Your task to perform on an android device: Open Google Maps and go to "Timeline" Image 0: 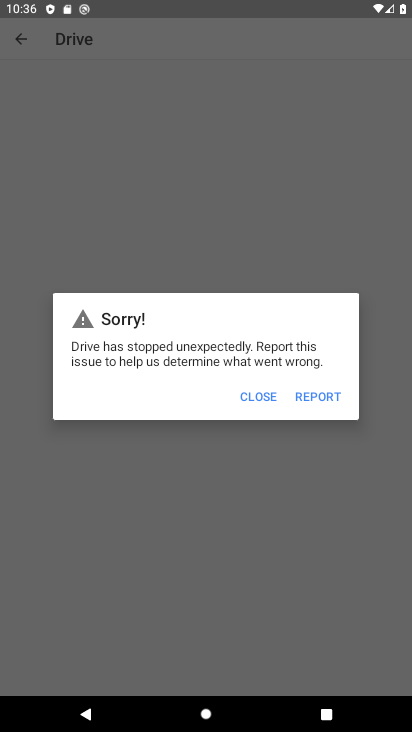
Step 0: press home button
Your task to perform on an android device: Open Google Maps and go to "Timeline" Image 1: 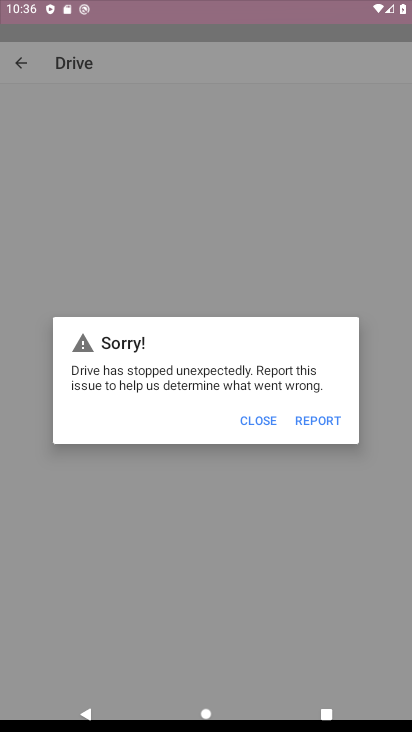
Step 1: drag from (234, 112) to (231, 71)
Your task to perform on an android device: Open Google Maps and go to "Timeline" Image 2: 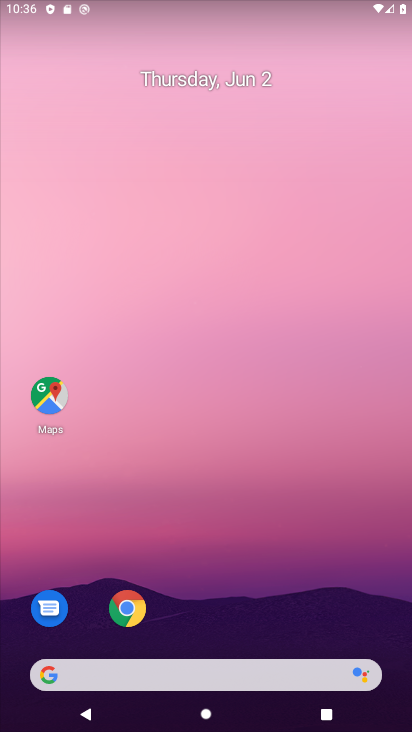
Step 2: drag from (227, 614) to (290, 143)
Your task to perform on an android device: Open Google Maps and go to "Timeline" Image 3: 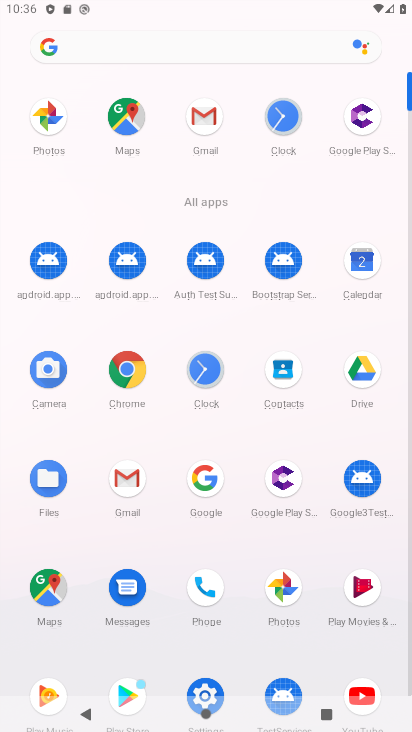
Step 3: click (45, 584)
Your task to perform on an android device: Open Google Maps and go to "Timeline" Image 4: 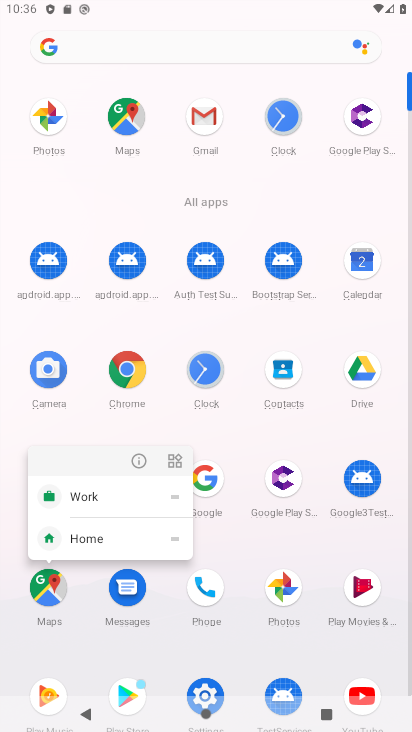
Step 4: click (140, 460)
Your task to perform on an android device: Open Google Maps and go to "Timeline" Image 5: 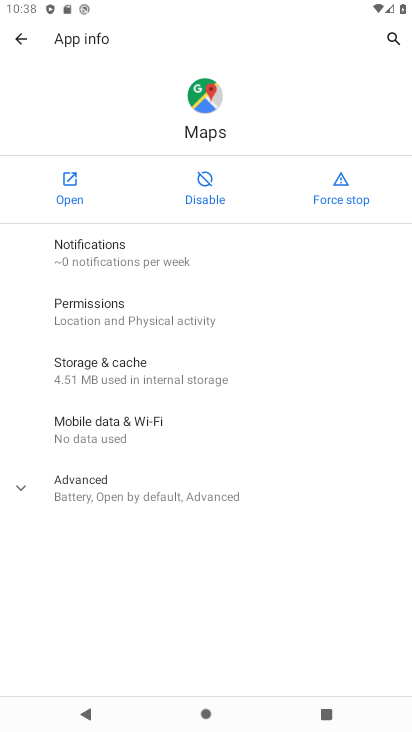
Step 5: click (71, 174)
Your task to perform on an android device: Open Google Maps and go to "Timeline" Image 6: 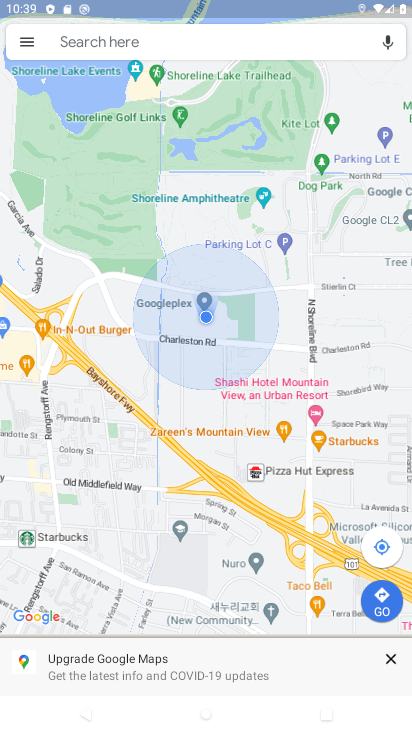
Step 6: click (25, 38)
Your task to perform on an android device: Open Google Maps and go to "Timeline" Image 7: 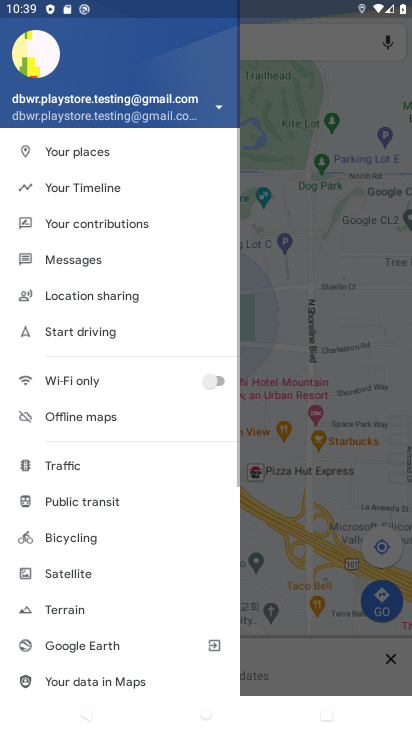
Step 7: click (94, 195)
Your task to perform on an android device: Open Google Maps and go to "Timeline" Image 8: 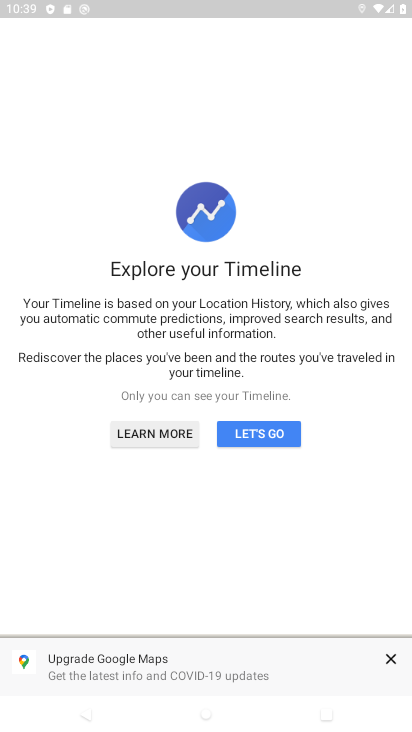
Step 8: click (254, 437)
Your task to perform on an android device: Open Google Maps and go to "Timeline" Image 9: 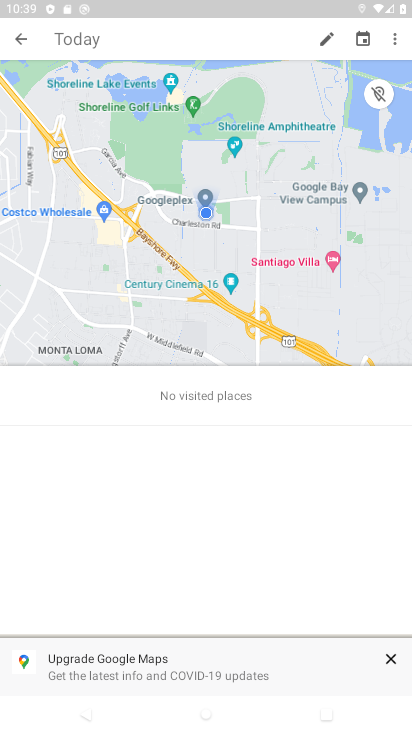
Step 9: drag from (269, 508) to (271, 227)
Your task to perform on an android device: Open Google Maps and go to "Timeline" Image 10: 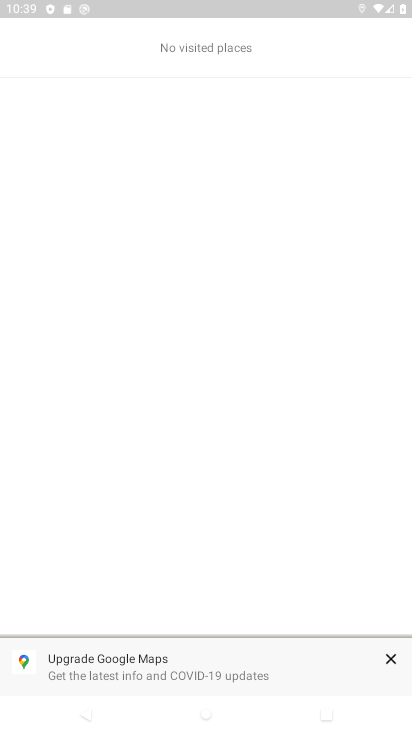
Step 10: drag from (190, 572) to (195, 353)
Your task to perform on an android device: Open Google Maps and go to "Timeline" Image 11: 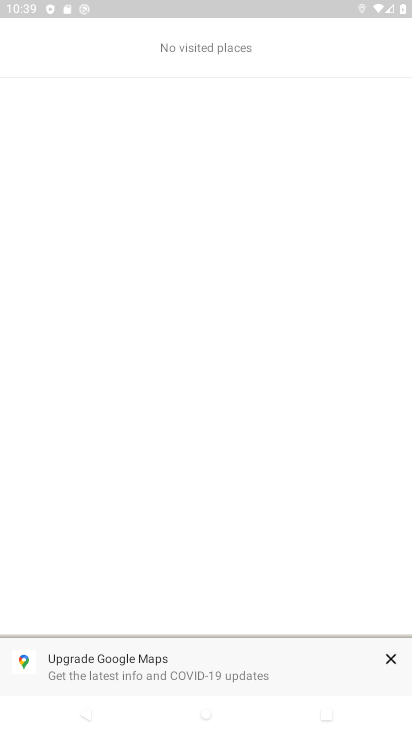
Step 11: click (378, 653)
Your task to perform on an android device: Open Google Maps and go to "Timeline" Image 12: 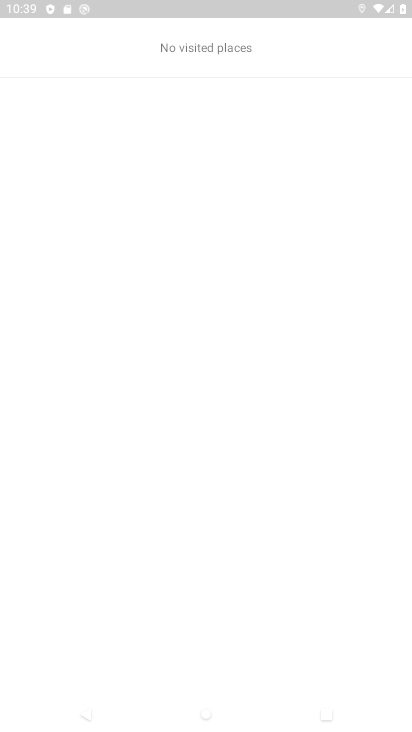
Step 12: press back button
Your task to perform on an android device: Open Google Maps and go to "Timeline" Image 13: 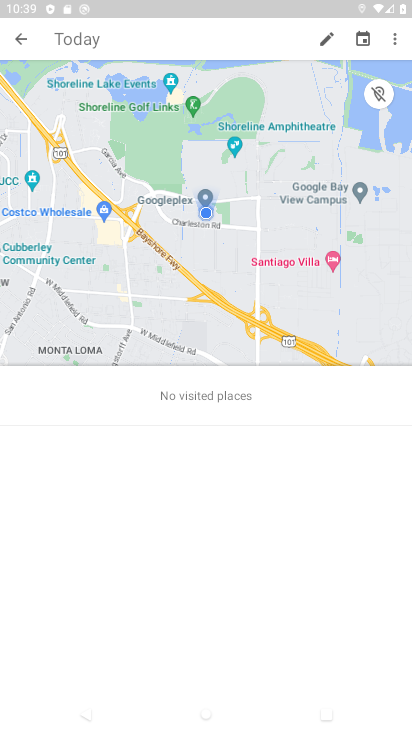
Step 13: click (28, 48)
Your task to perform on an android device: Open Google Maps and go to "Timeline" Image 14: 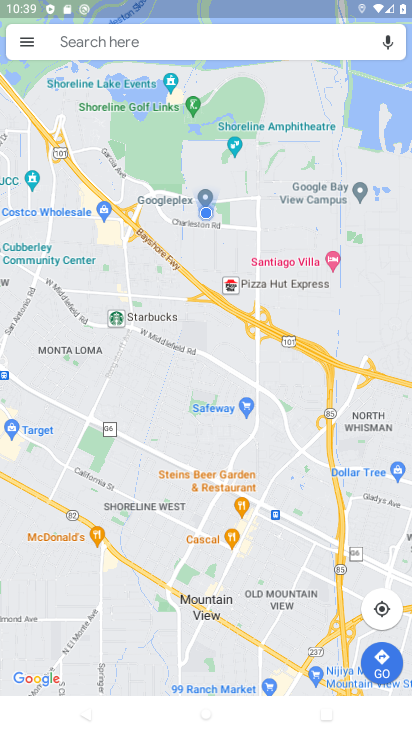
Step 14: click (26, 47)
Your task to perform on an android device: Open Google Maps and go to "Timeline" Image 15: 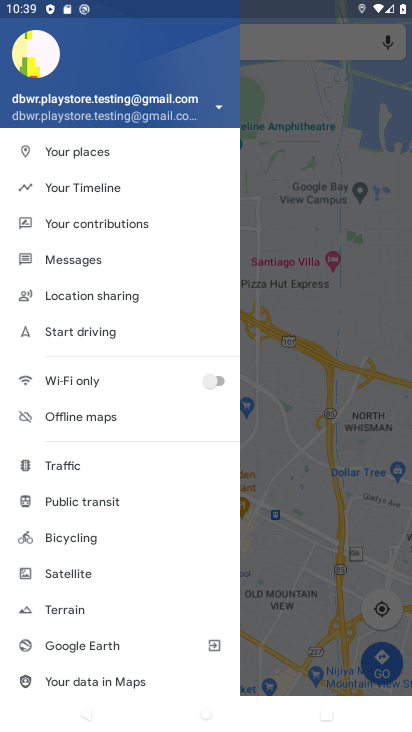
Step 15: click (128, 184)
Your task to perform on an android device: Open Google Maps and go to "Timeline" Image 16: 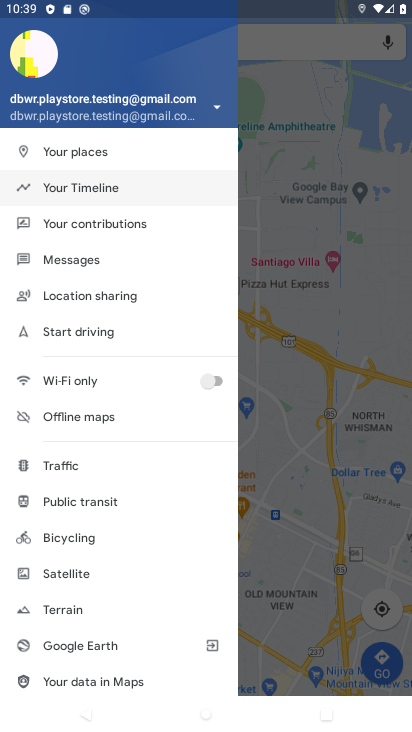
Step 16: task complete